Your task to perform on an android device: View the shopping cart on costco.com. Add "usb-c to usb-b" to the cart on costco.com Image 0: 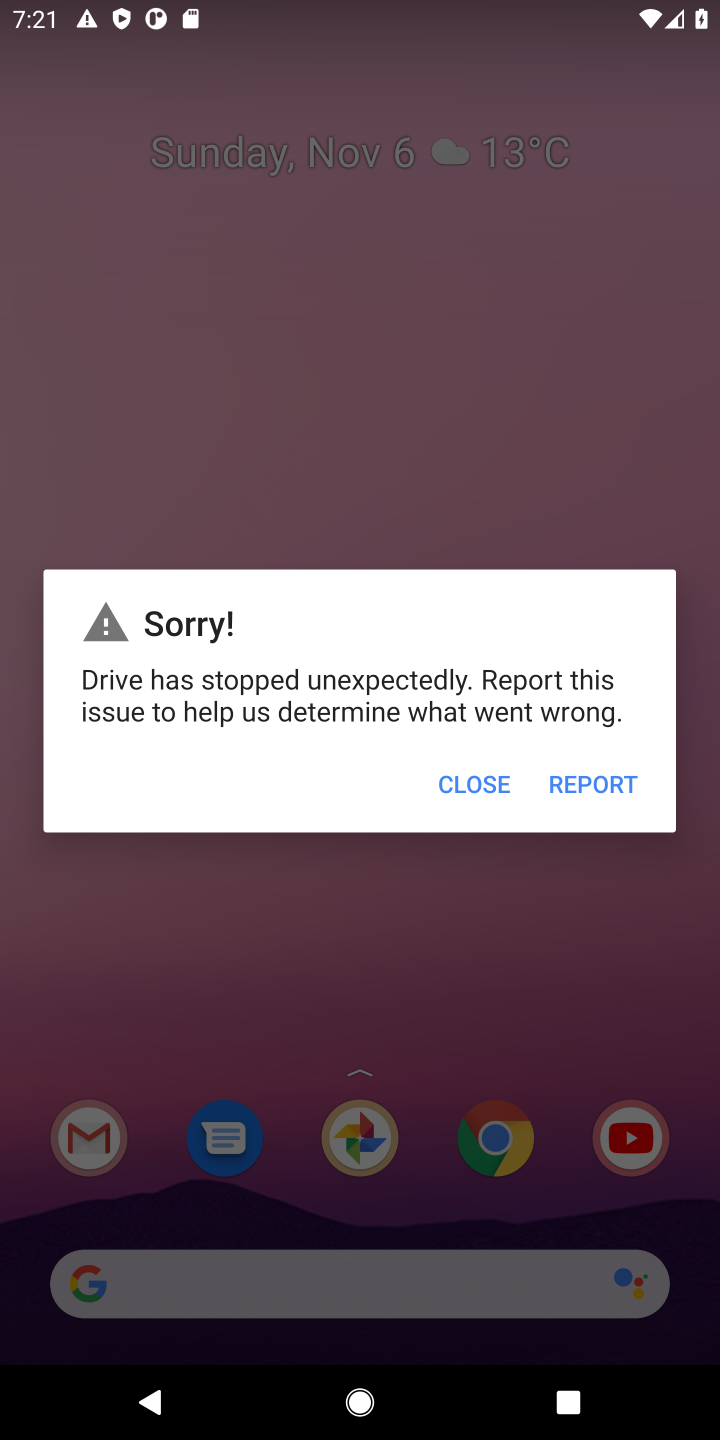
Step 0: click (469, 784)
Your task to perform on an android device: View the shopping cart on costco.com. Add "usb-c to usb-b" to the cart on costco.com Image 1: 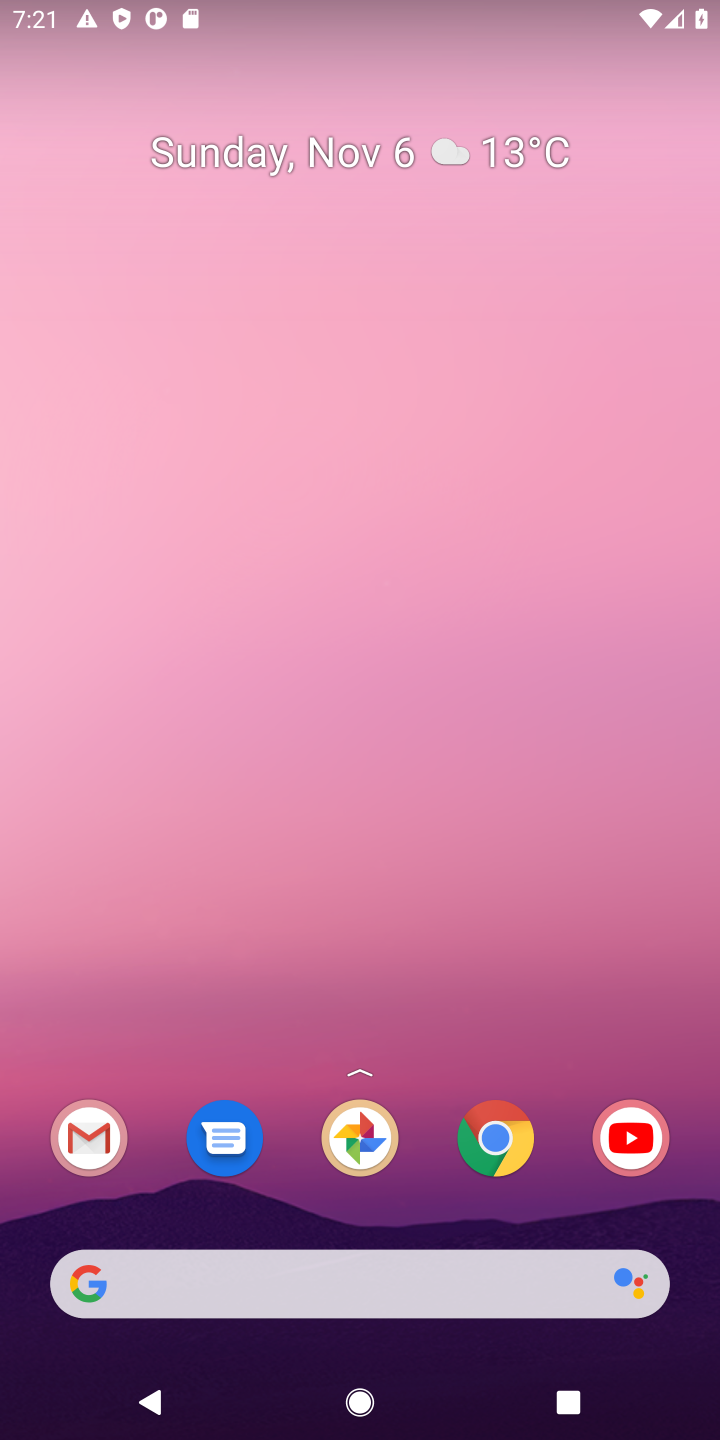
Step 1: click (517, 1150)
Your task to perform on an android device: View the shopping cart on costco.com. Add "usb-c to usb-b" to the cart on costco.com Image 2: 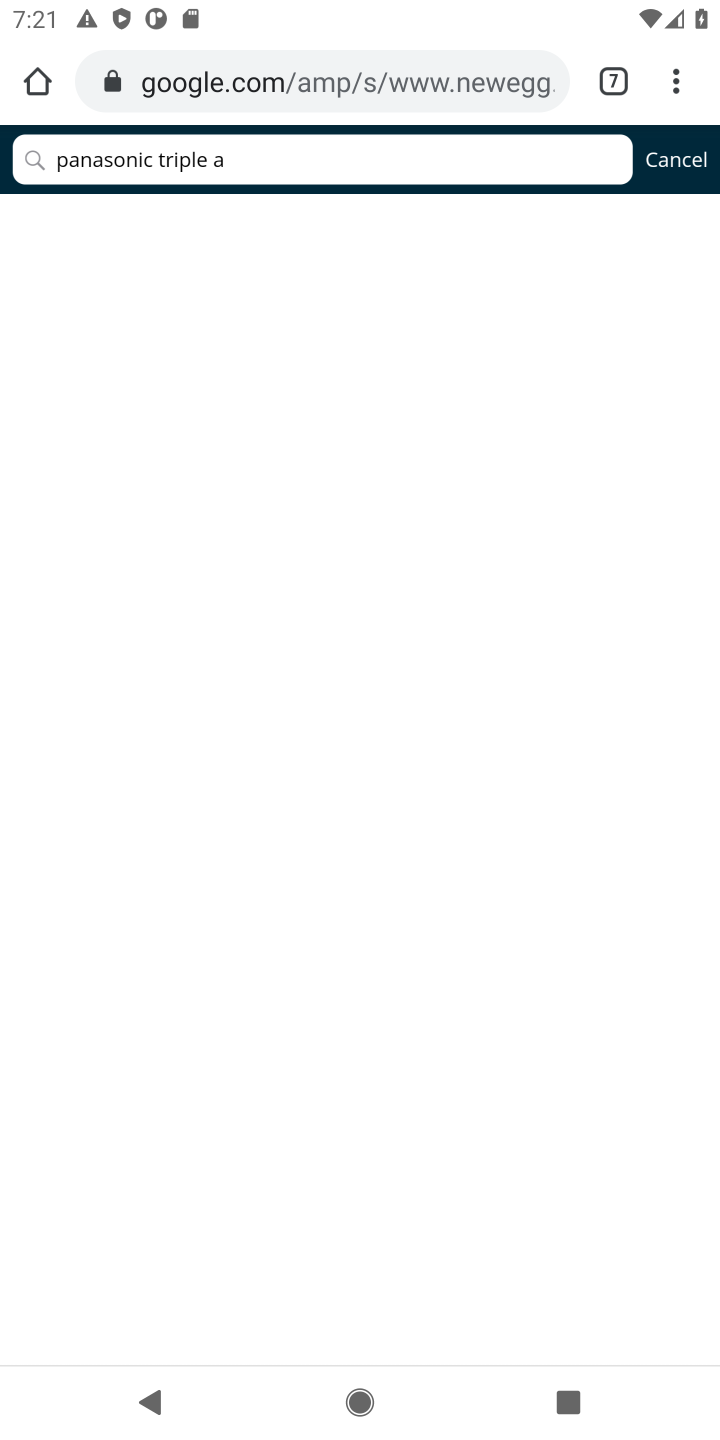
Step 2: click (604, 83)
Your task to perform on an android device: View the shopping cart on costco.com. Add "usb-c to usb-b" to the cart on costco.com Image 3: 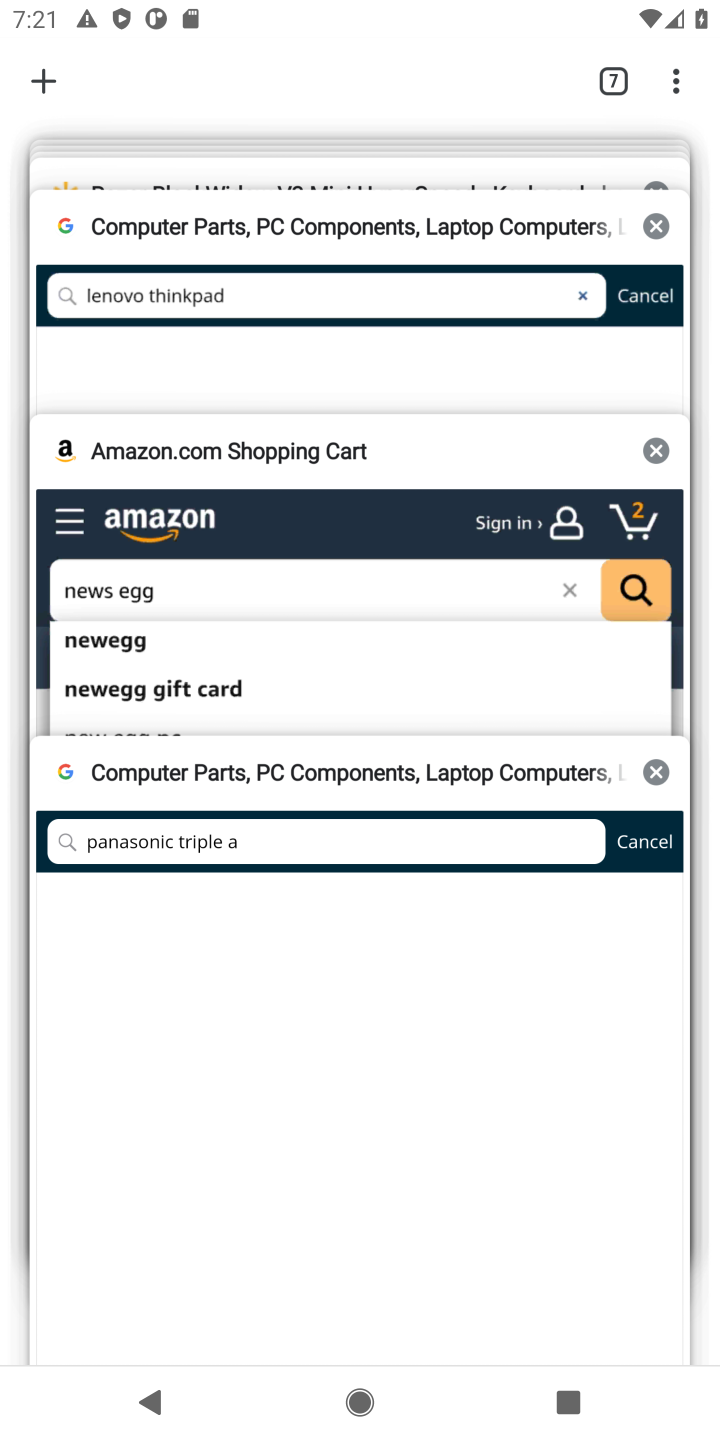
Step 3: click (658, 765)
Your task to perform on an android device: View the shopping cart on costco.com. Add "usb-c to usb-b" to the cart on costco.com Image 4: 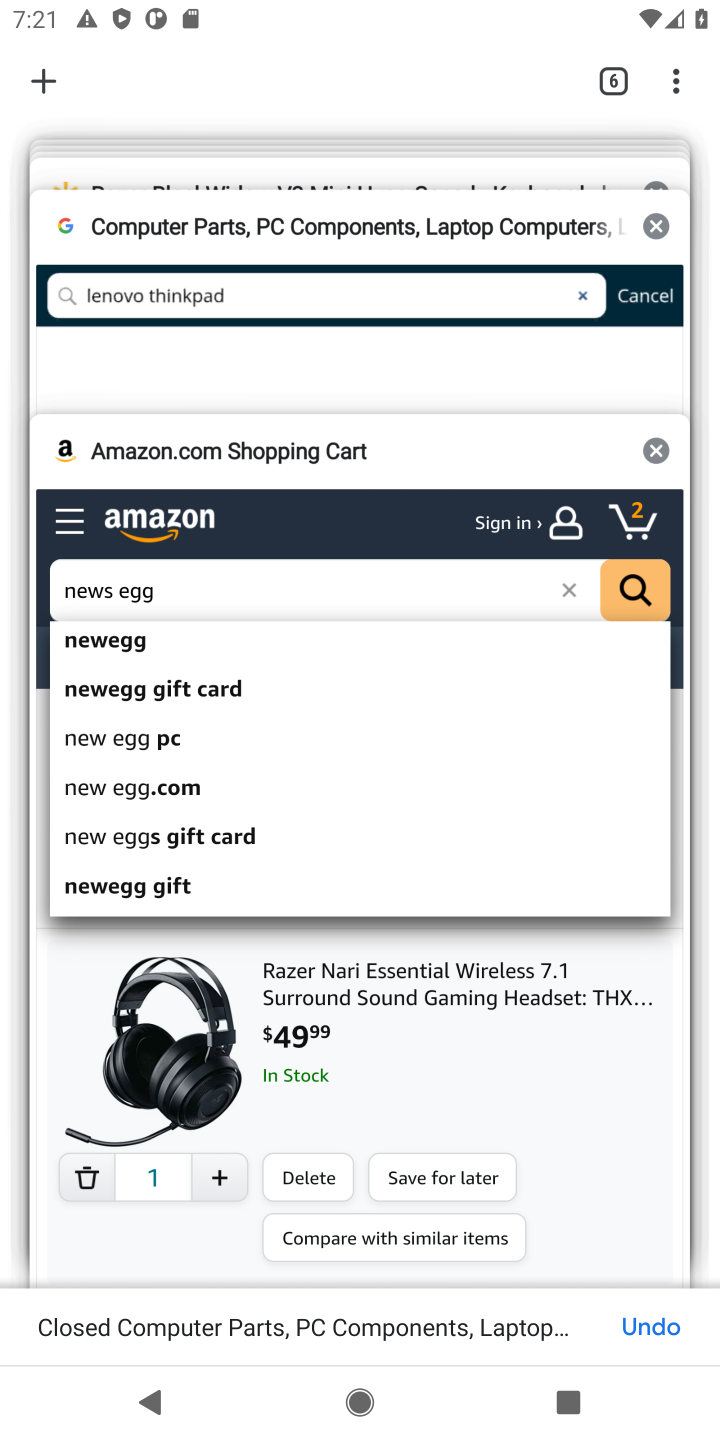
Step 4: click (660, 458)
Your task to perform on an android device: View the shopping cart on costco.com. Add "usb-c to usb-b" to the cart on costco.com Image 5: 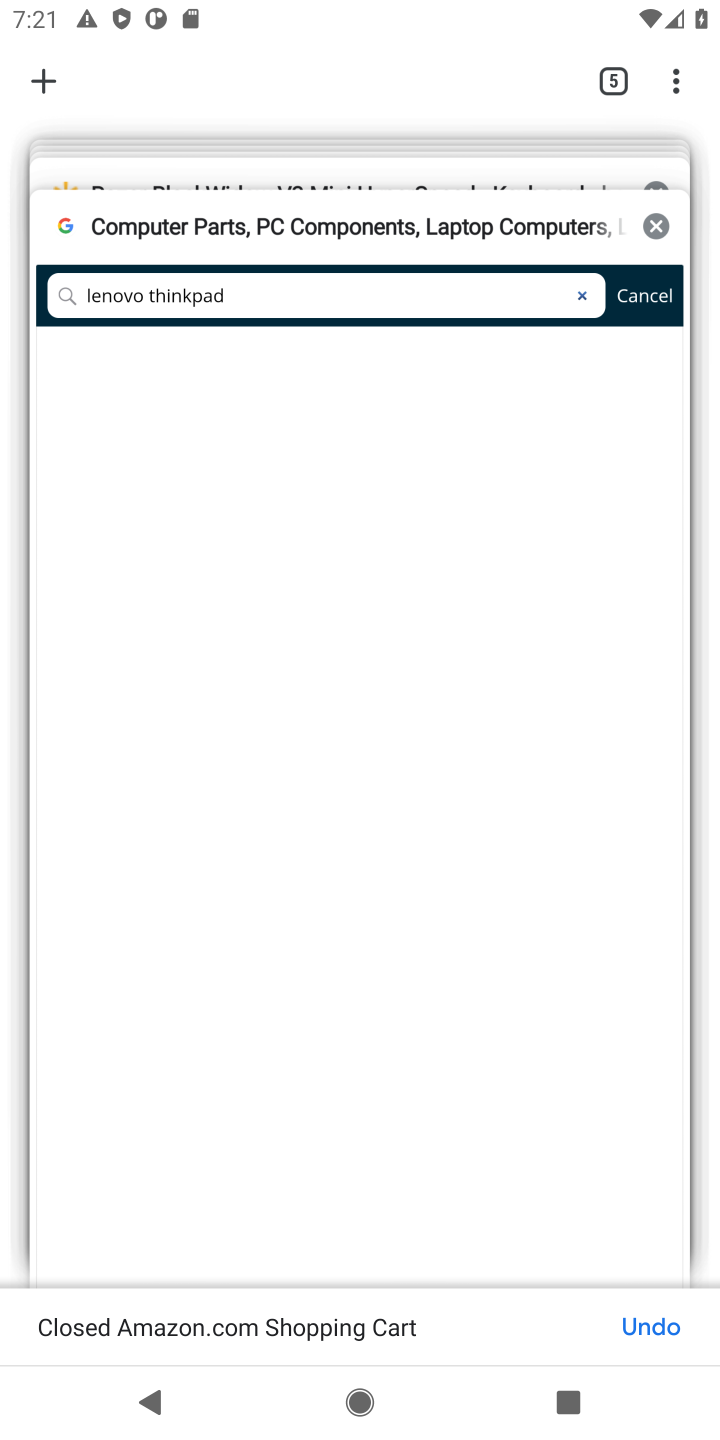
Step 5: click (668, 225)
Your task to perform on an android device: View the shopping cart on costco.com. Add "usb-c to usb-b" to the cart on costco.com Image 6: 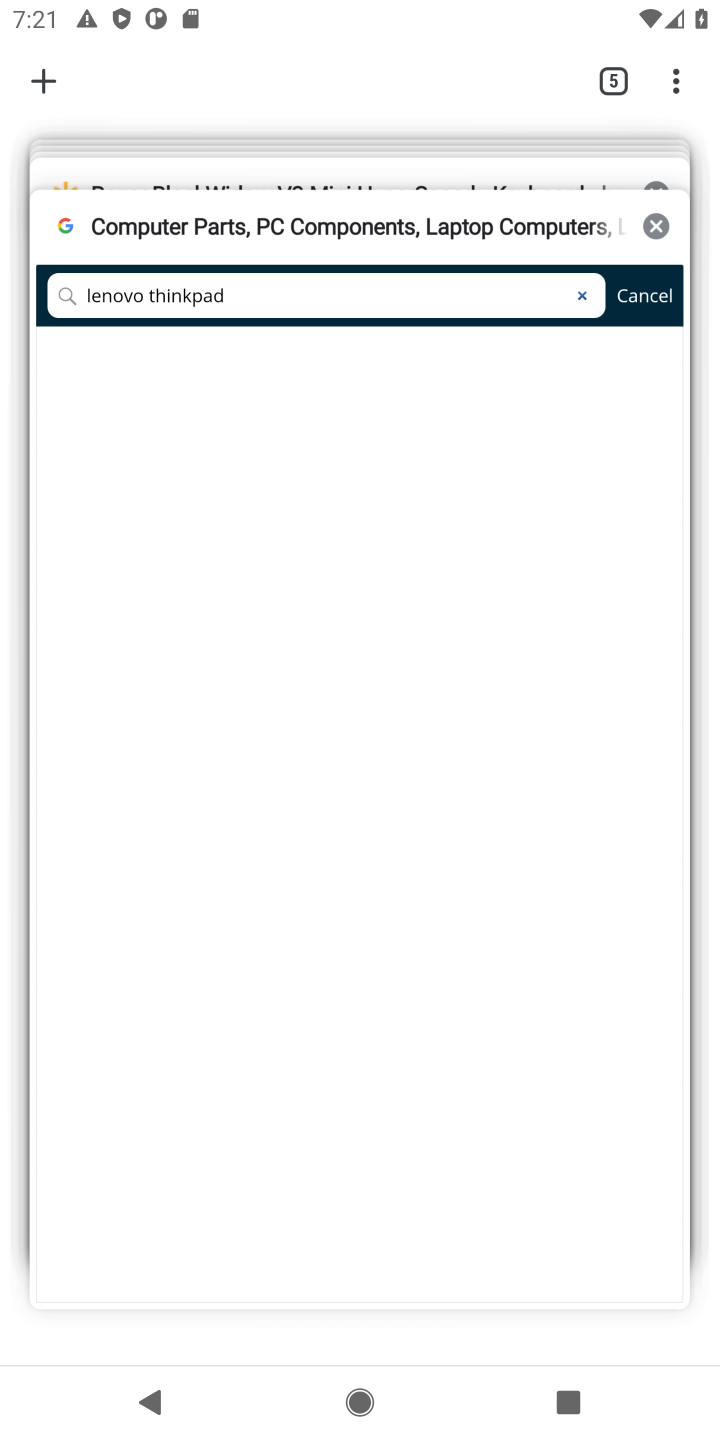
Step 6: click (660, 229)
Your task to perform on an android device: View the shopping cart on costco.com. Add "usb-c to usb-b" to the cart on costco.com Image 7: 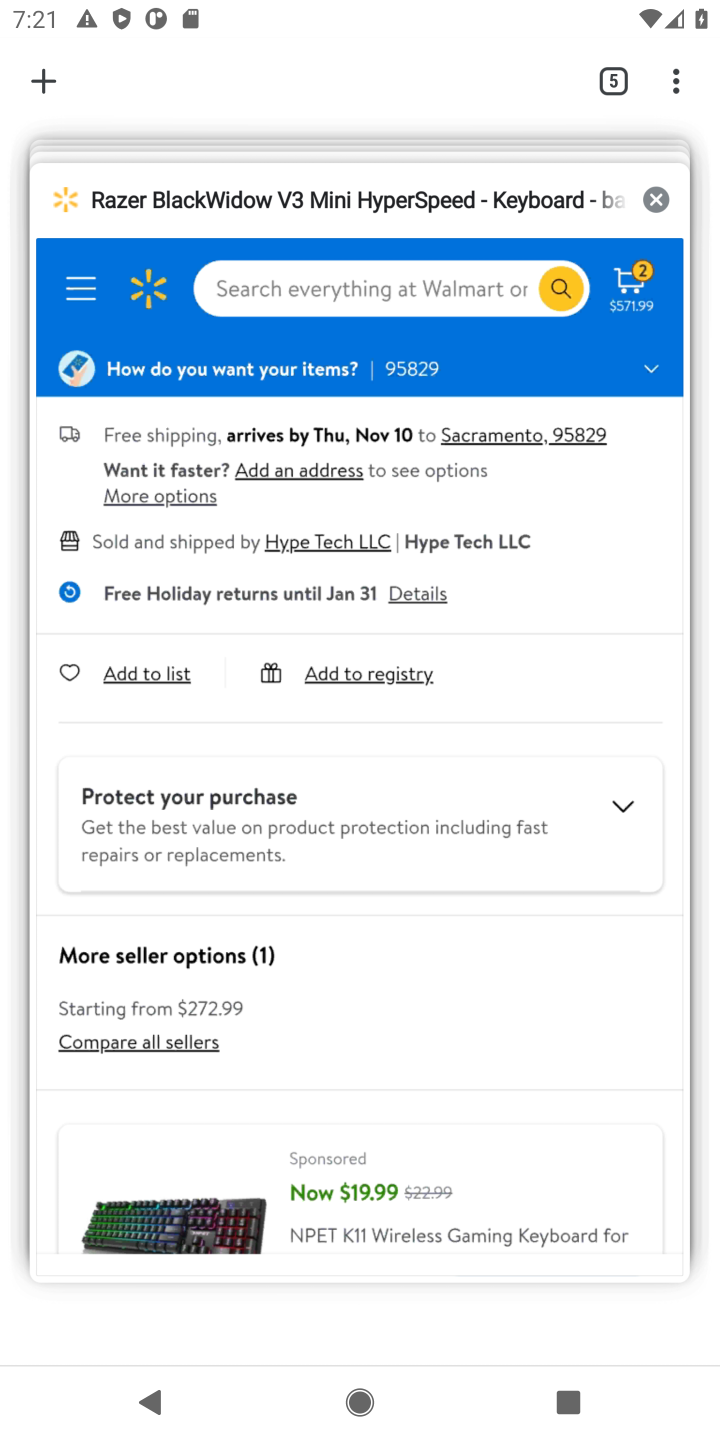
Step 7: click (45, 69)
Your task to perform on an android device: View the shopping cart on costco.com. Add "usb-c to usb-b" to the cart on costco.com Image 8: 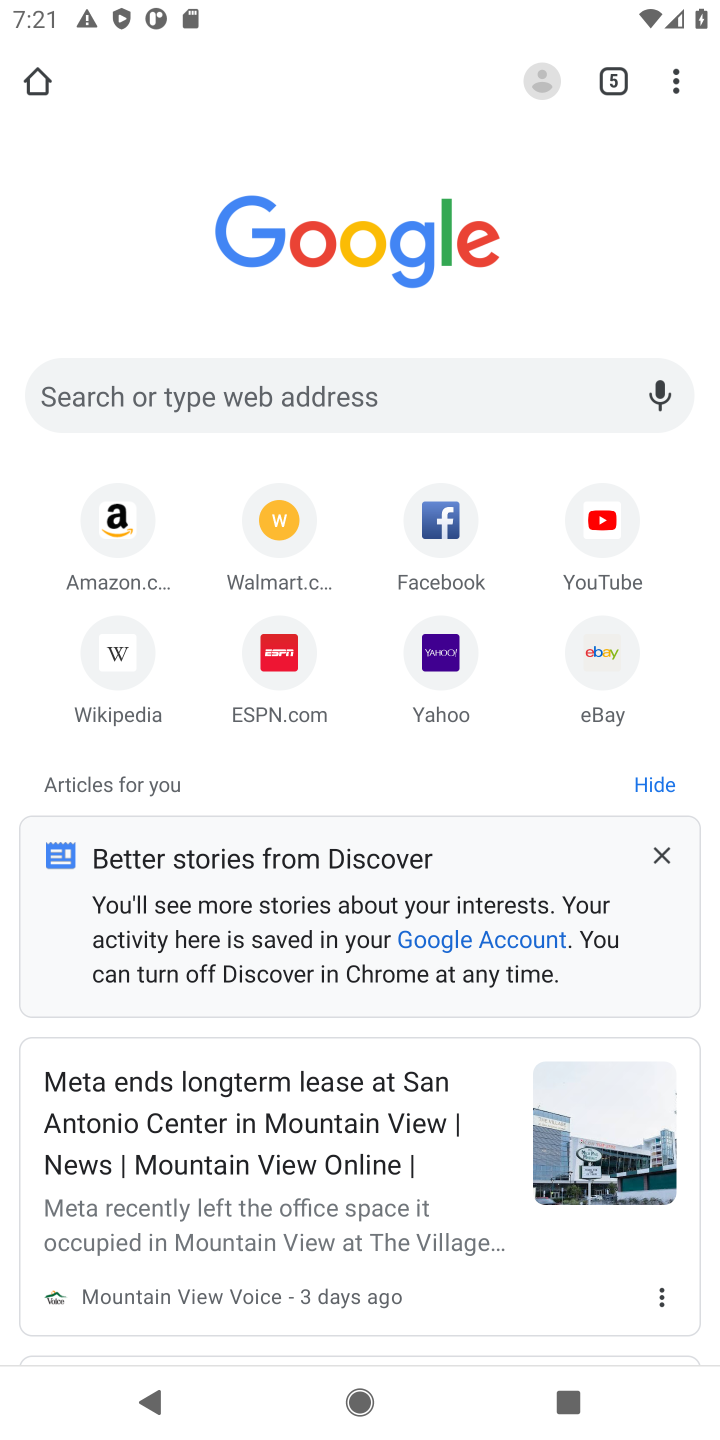
Step 8: click (185, 410)
Your task to perform on an android device: View the shopping cart on costco.com. Add "usb-c to usb-b" to the cart on costco.com Image 9: 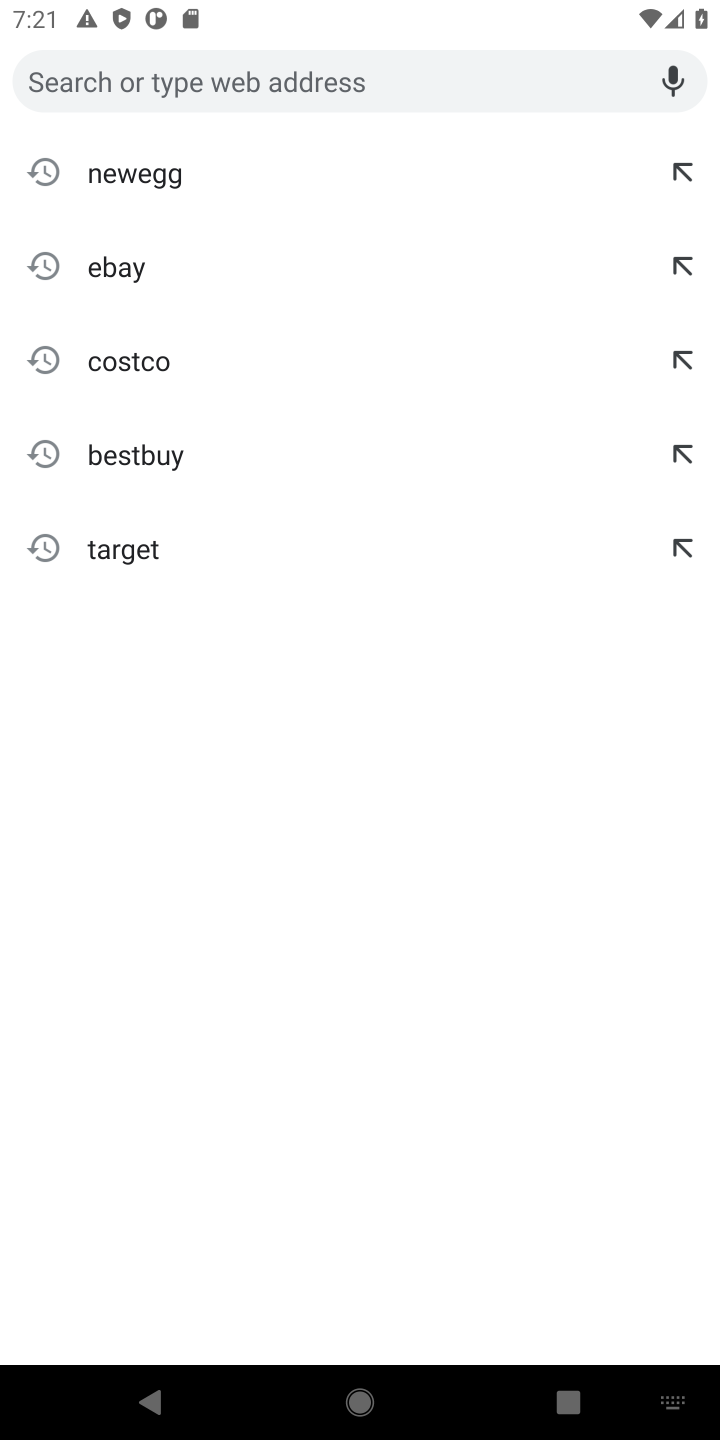
Step 9: type "costco.com"
Your task to perform on an android device: View the shopping cart on costco.com. Add "usb-c to usb-b" to the cart on costco.com Image 10: 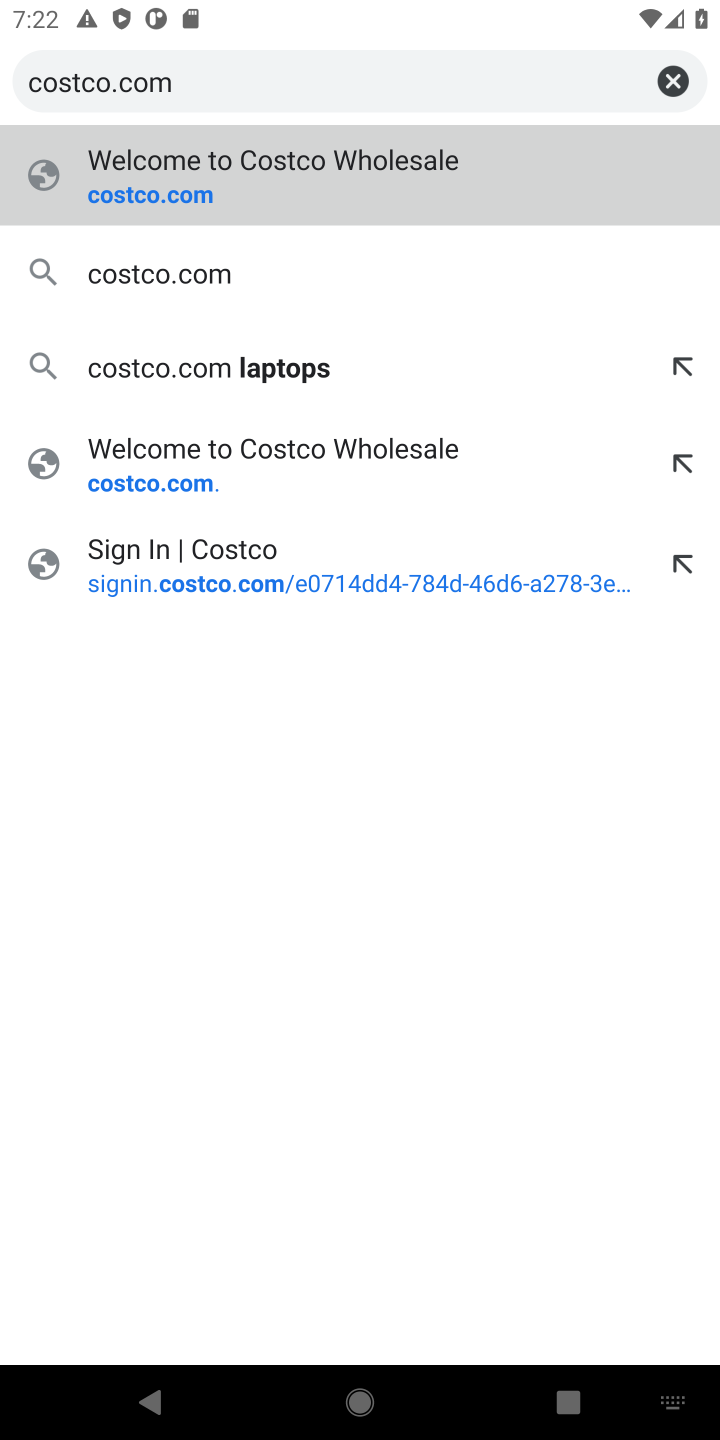
Step 10: click (229, 194)
Your task to perform on an android device: View the shopping cart on costco.com. Add "usb-c to usb-b" to the cart on costco.com Image 11: 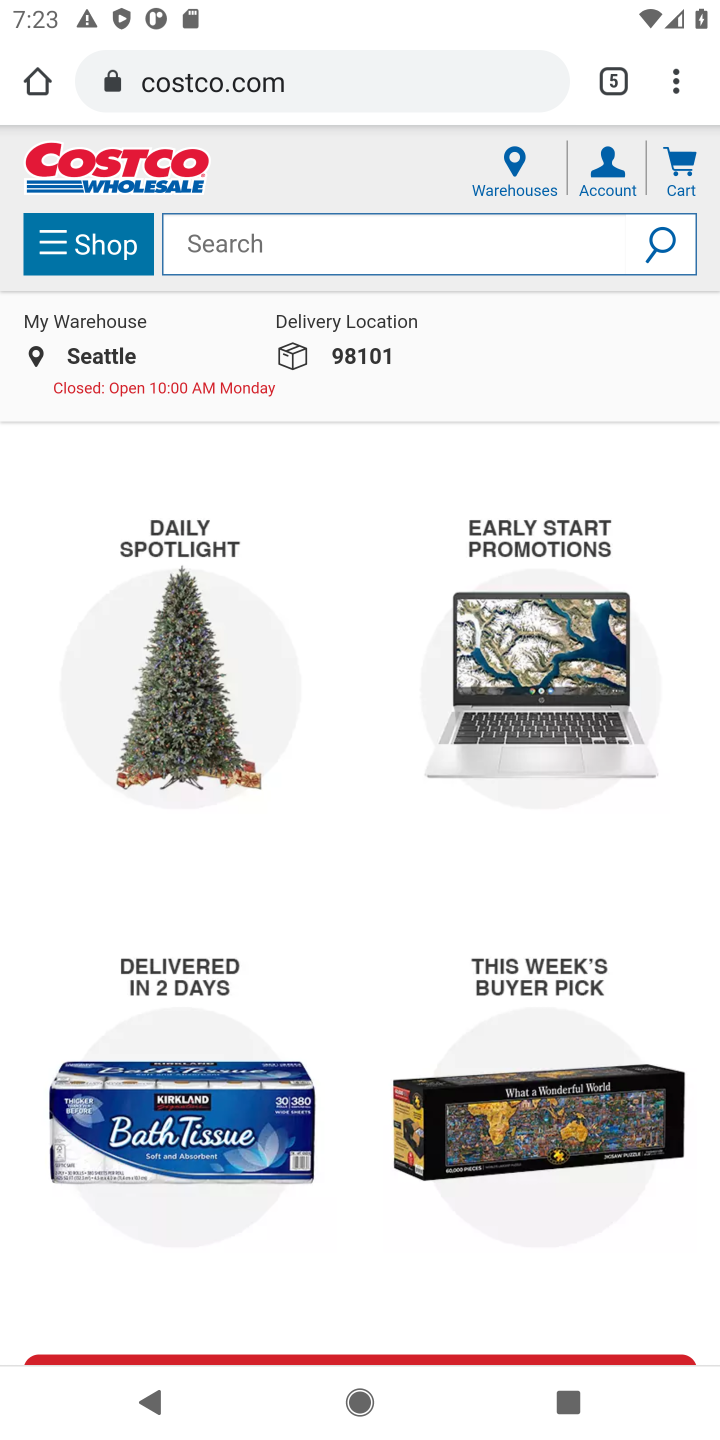
Step 11: click (378, 248)
Your task to perform on an android device: View the shopping cart on costco.com. Add "usb-c to usb-b" to the cart on costco.com Image 12: 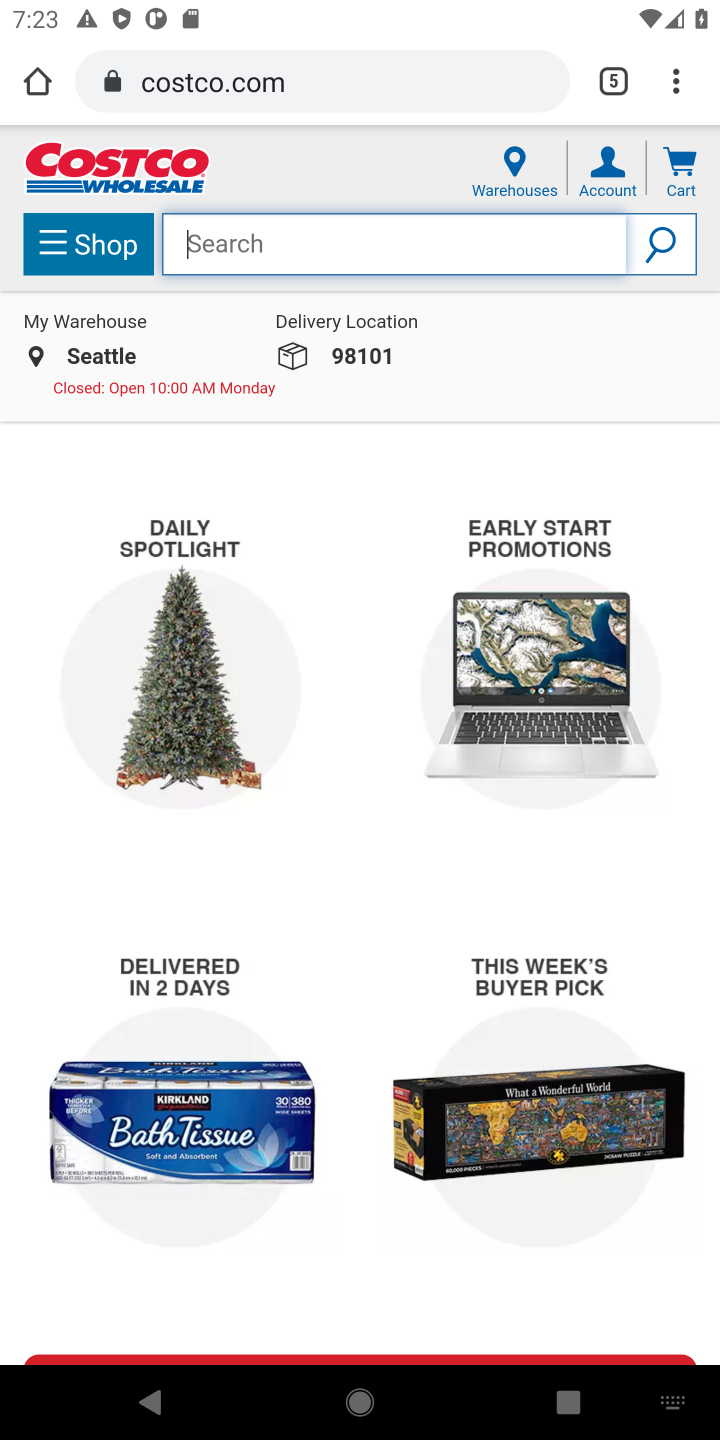
Step 12: click (318, 225)
Your task to perform on an android device: View the shopping cart on costco.com. Add "usb-c to usb-b" to the cart on costco.com Image 13: 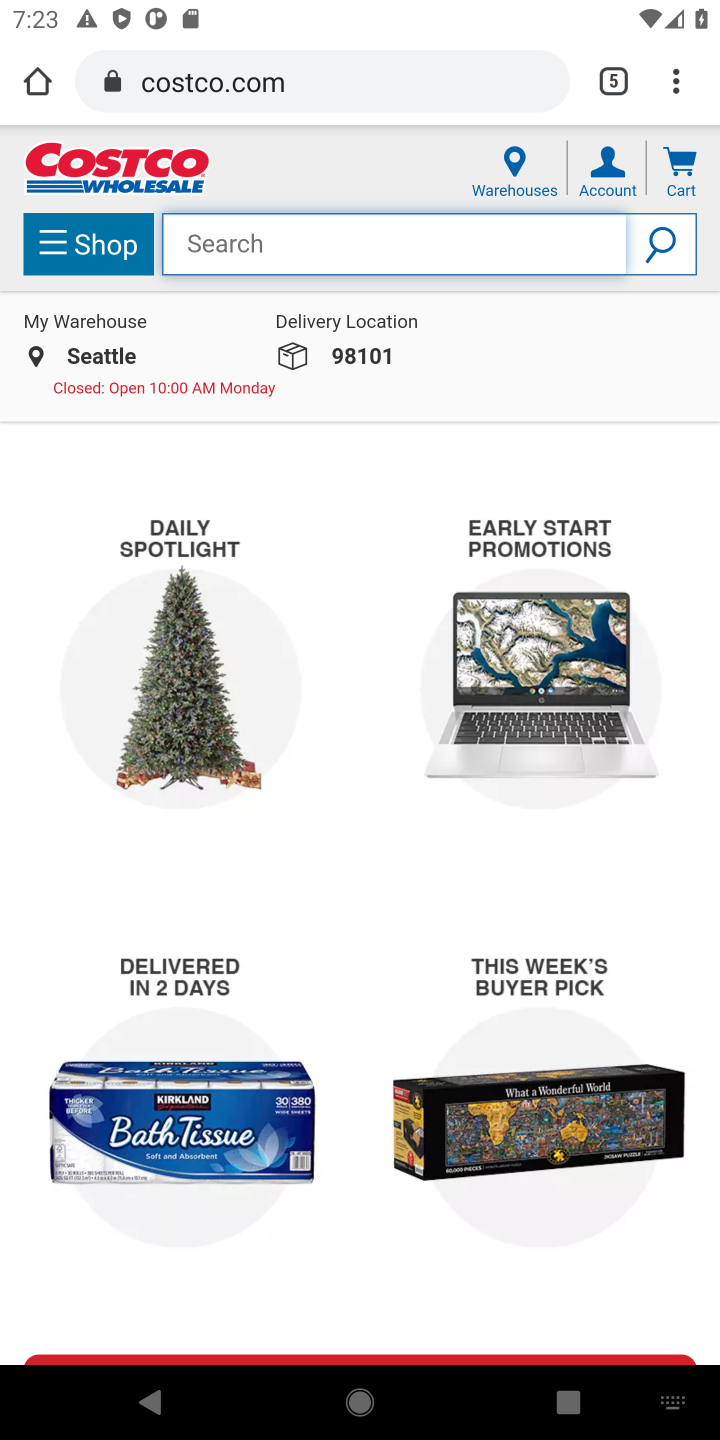
Step 13: type "usb-c to usb-b"
Your task to perform on an android device: View the shopping cart on costco.com. Add "usb-c to usb-b" to the cart on costco.com Image 14: 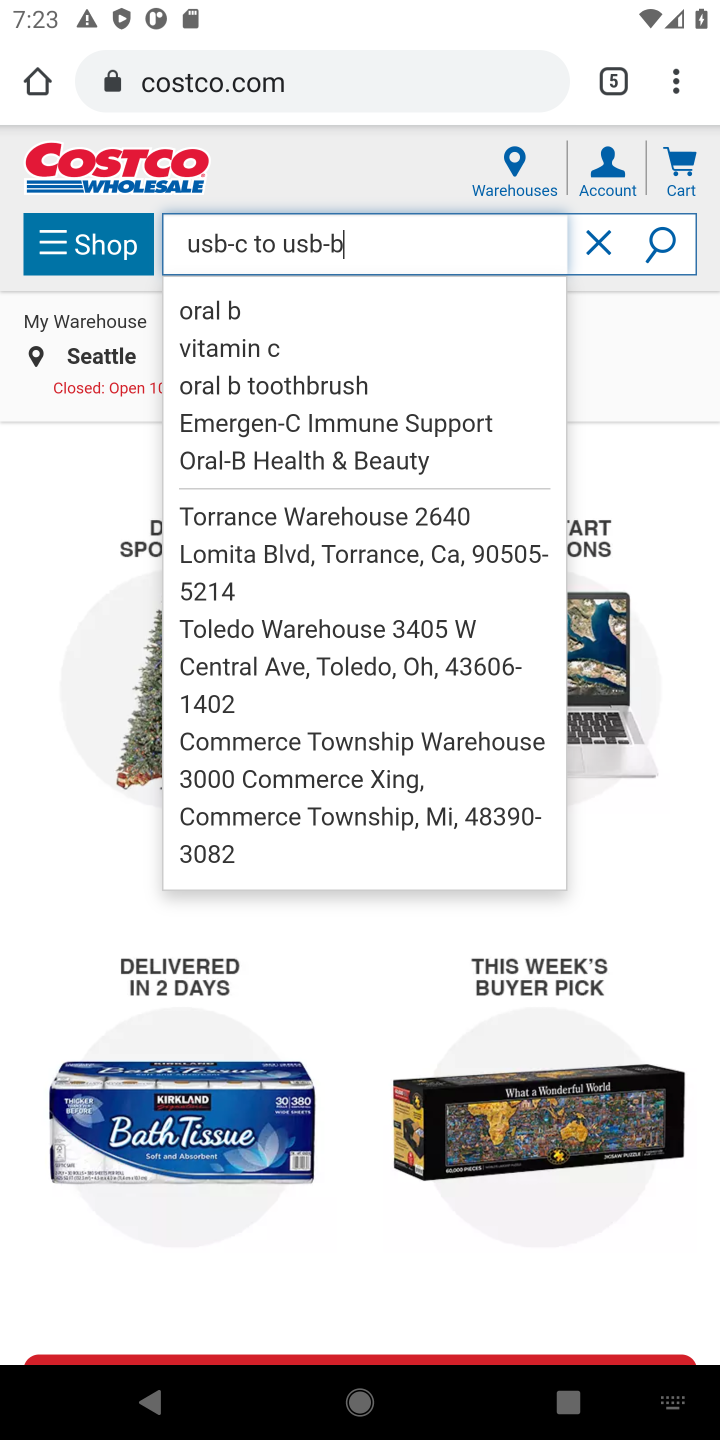
Step 14: task complete